Your task to perform on an android device: Open Google Maps and go to "Timeline" Image 0: 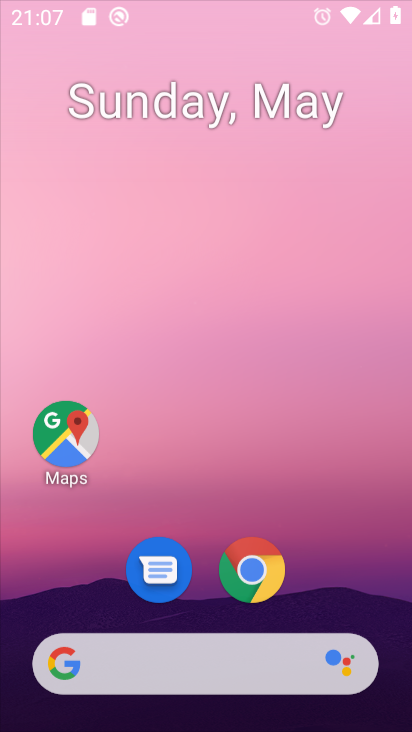
Step 0: drag from (203, 198) to (246, 6)
Your task to perform on an android device: Open Google Maps and go to "Timeline" Image 1: 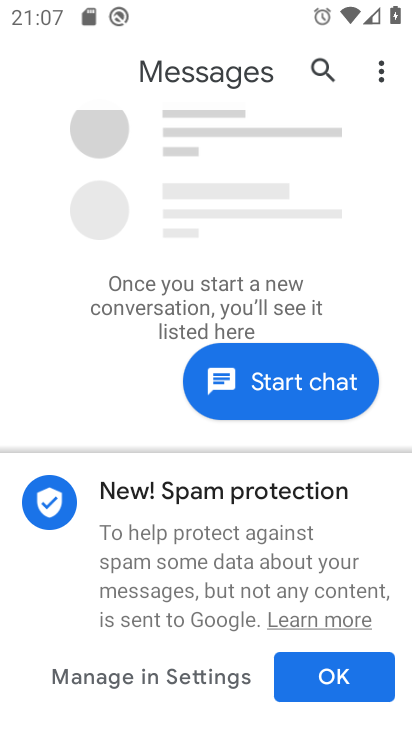
Step 1: press home button
Your task to perform on an android device: Open Google Maps and go to "Timeline" Image 2: 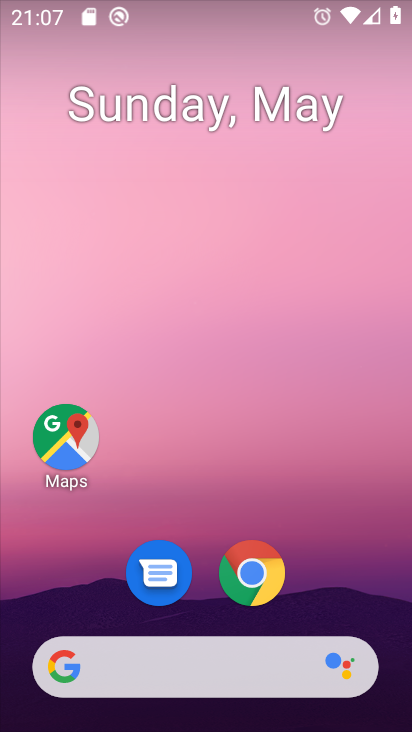
Step 2: click (66, 424)
Your task to perform on an android device: Open Google Maps and go to "Timeline" Image 3: 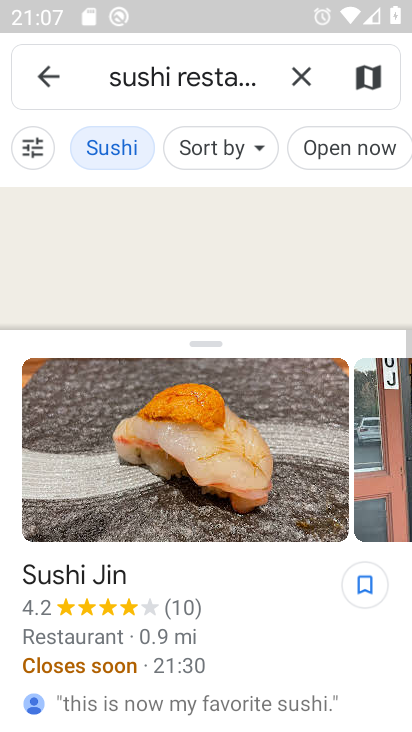
Step 3: click (50, 71)
Your task to perform on an android device: Open Google Maps and go to "Timeline" Image 4: 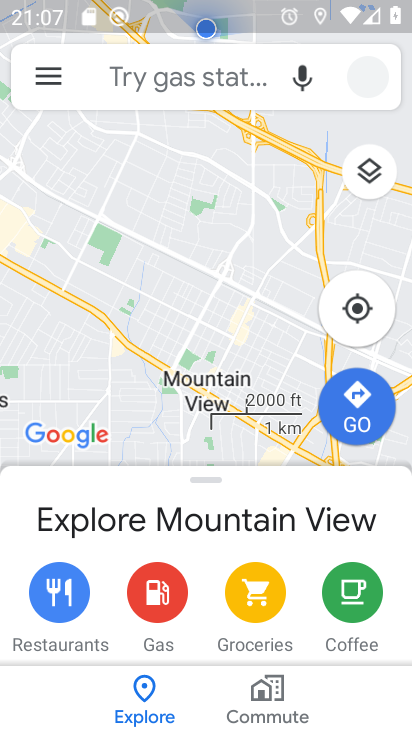
Step 4: click (46, 73)
Your task to perform on an android device: Open Google Maps and go to "Timeline" Image 5: 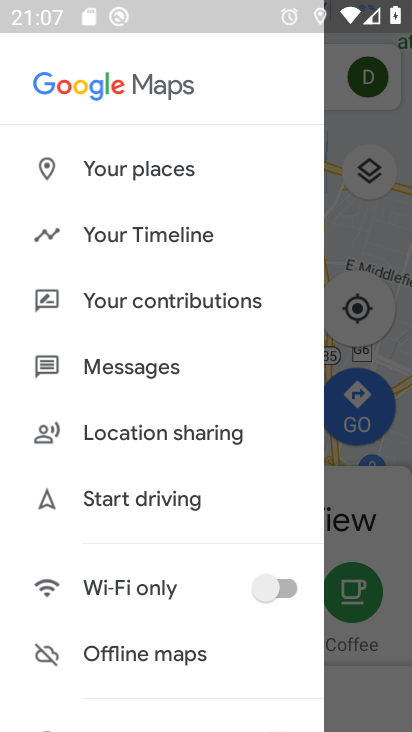
Step 5: click (156, 224)
Your task to perform on an android device: Open Google Maps and go to "Timeline" Image 6: 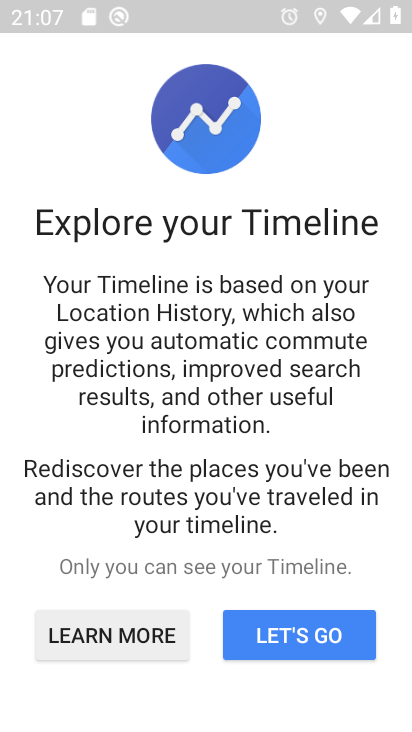
Step 6: click (347, 636)
Your task to perform on an android device: Open Google Maps and go to "Timeline" Image 7: 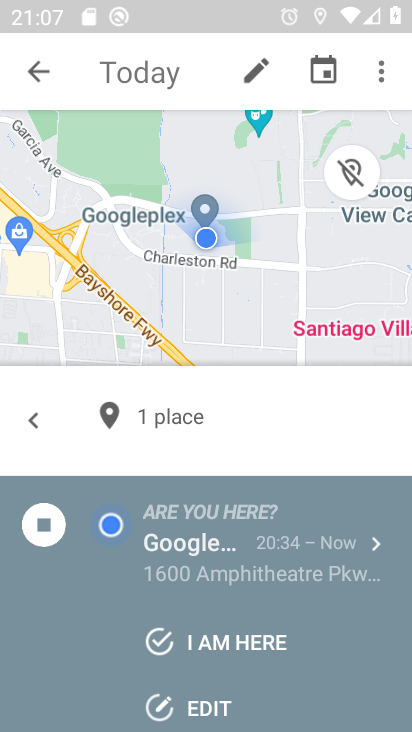
Step 7: task complete